Your task to perform on an android device: toggle priority inbox in the gmail app Image 0: 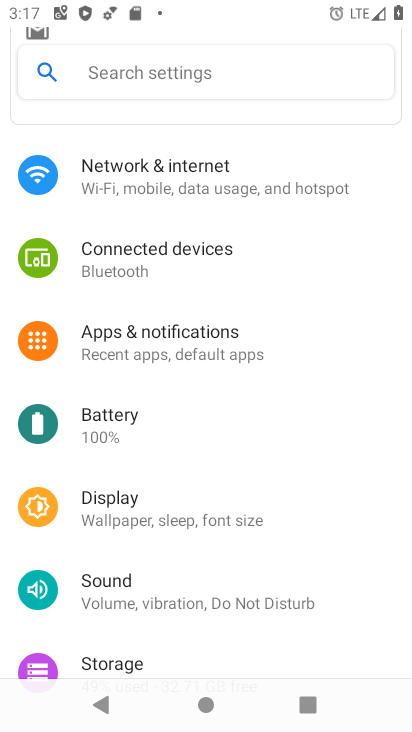
Step 0: press home button
Your task to perform on an android device: toggle priority inbox in the gmail app Image 1: 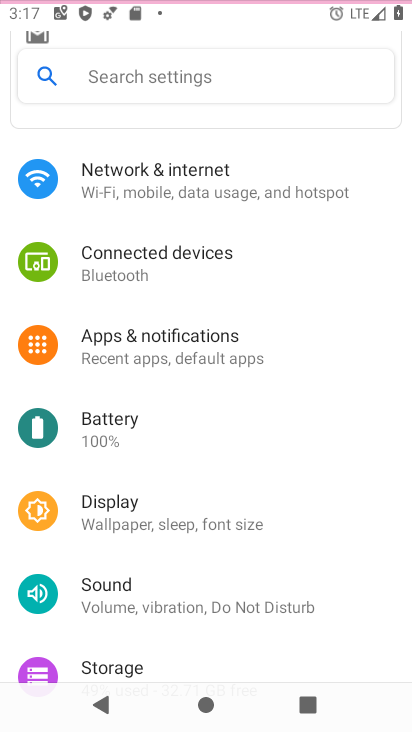
Step 1: press home button
Your task to perform on an android device: toggle priority inbox in the gmail app Image 2: 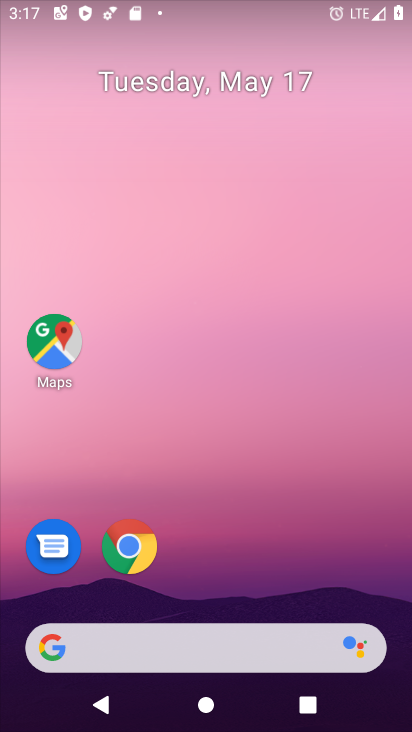
Step 2: drag from (333, 532) to (316, 3)
Your task to perform on an android device: toggle priority inbox in the gmail app Image 3: 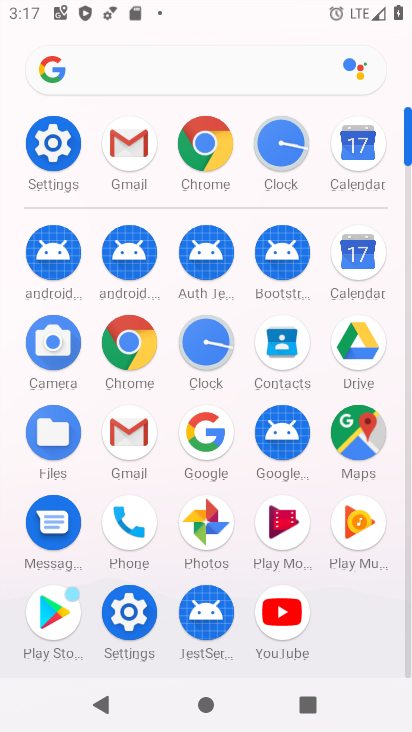
Step 3: click (139, 155)
Your task to perform on an android device: toggle priority inbox in the gmail app Image 4: 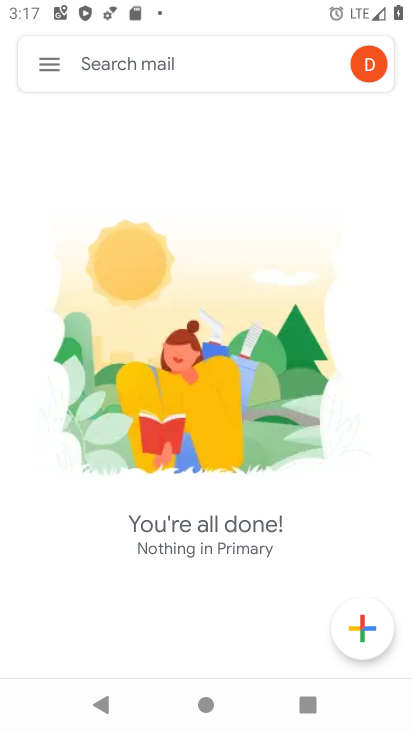
Step 4: click (49, 52)
Your task to perform on an android device: toggle priority inbox in the gmail app Image 5: 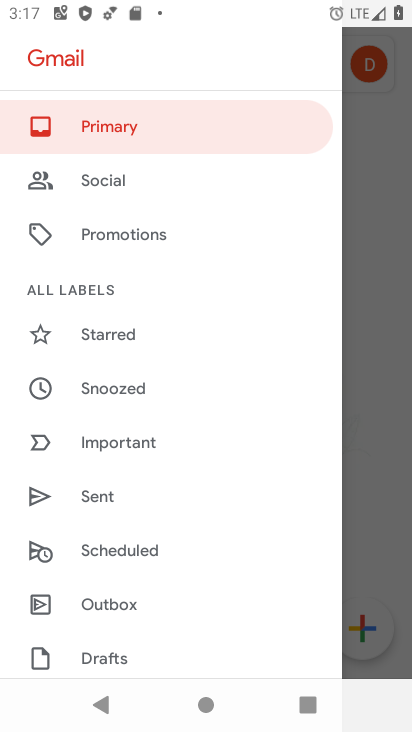
Step 5: drag from (133, 609) to (152, 171)
Your task to perform on an android device: toggle priority inbox in the gmail app Image 6: 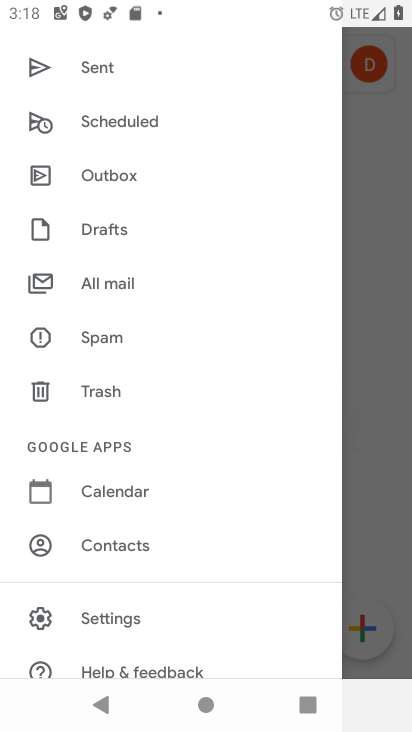
Step 6: click (101, 609)
Your task to perform on an android device: toggle priority inbox in the gmail app Image 7: 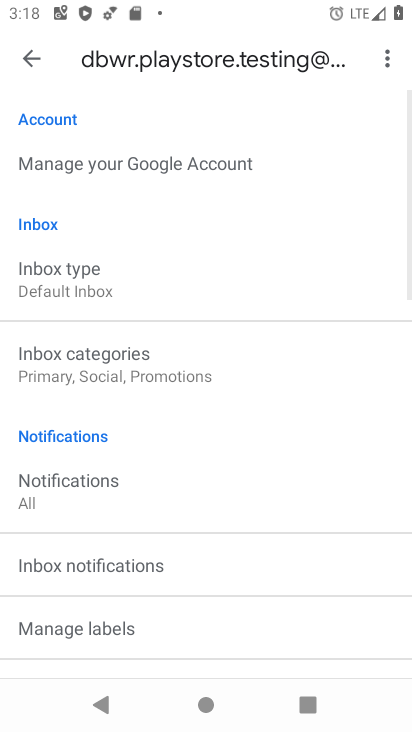
Step 7: click (112, 280)
Your task to perform on an android device: toggle priority inbox in the gmail app Image 8: 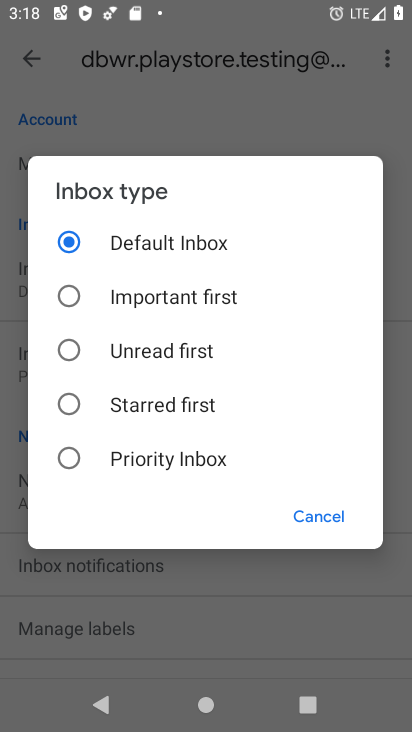
Step 8: click (175, 442)
Your task to perform on an android device: toggle priority inbox in the gmail app Image 9: 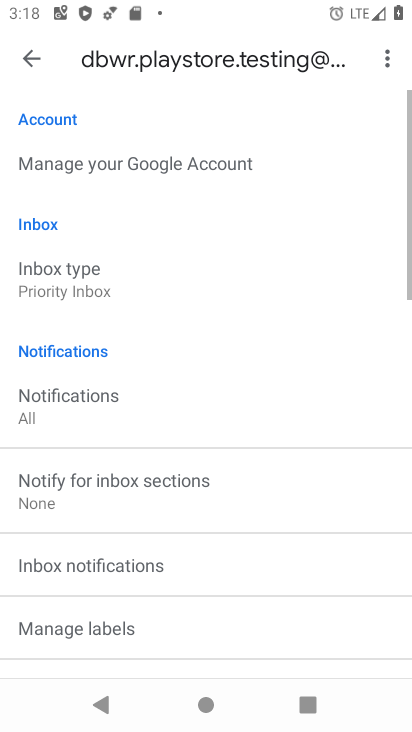
Step 9: task complete